Your task to perform on an android device: open app "Microsoft Outlook" (install if not already installed) Image 0: 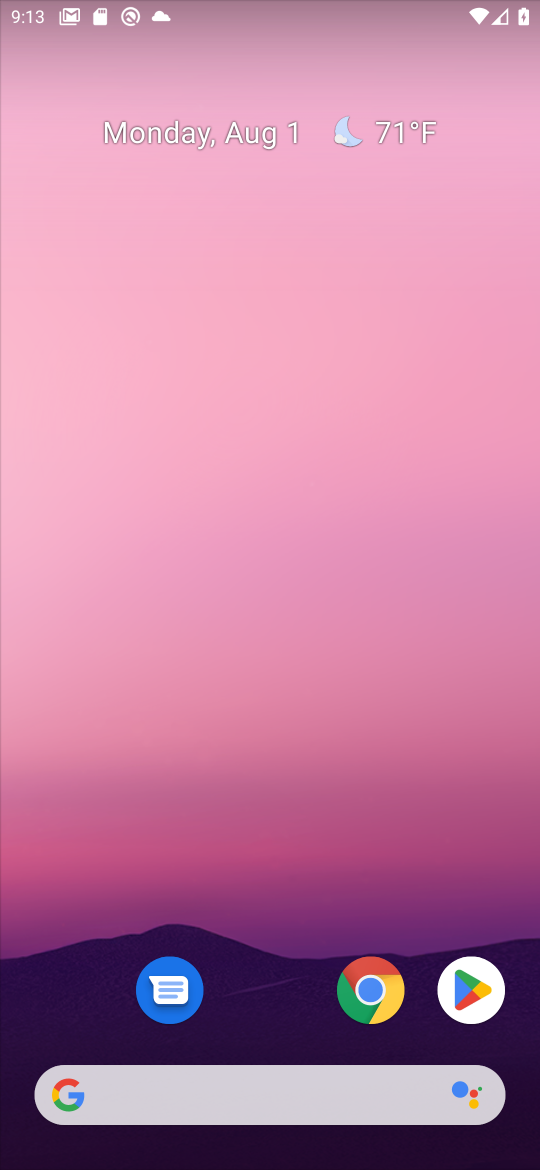
Step 0: press home button
Your task to perform on an android device: open app "Microsoft Outlook" (install if not already installed) Image 1: 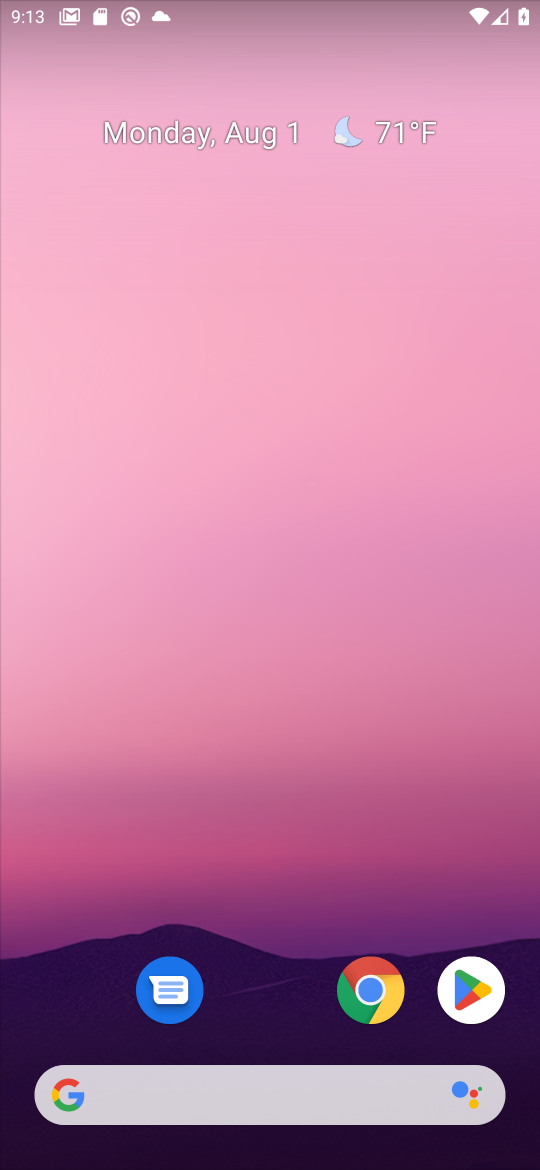
Step 1: click (469, 1012)
Your task to perform on an android device: open app "Microsoft Outlook" (install if not already installed) Image 2: 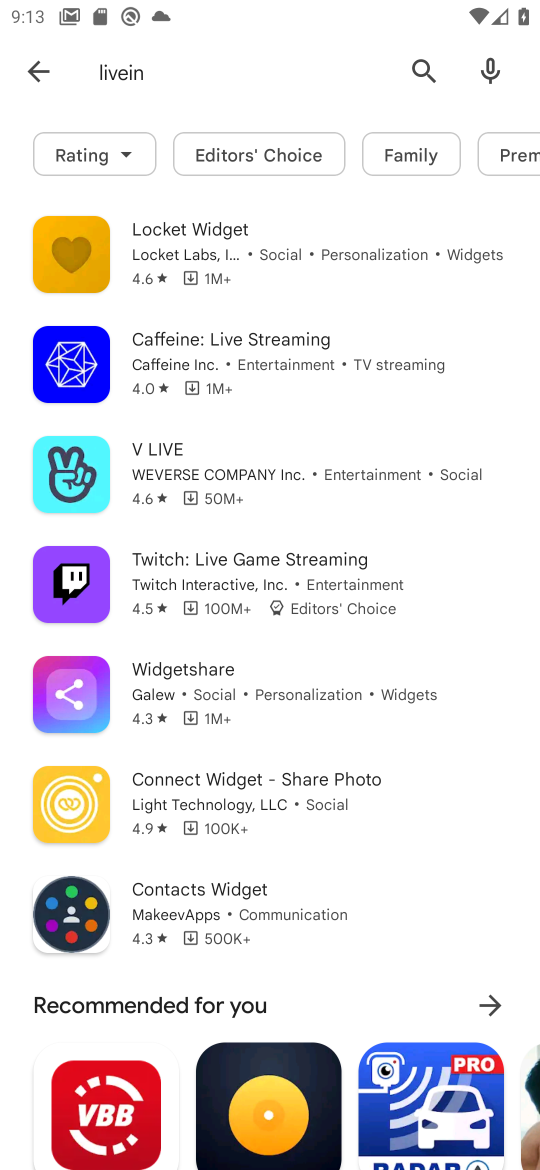
Step 2: click (409, 61)
Your task to perform on an android device: open app "Microsoft Outlook" (install if not already installed) Image 3: 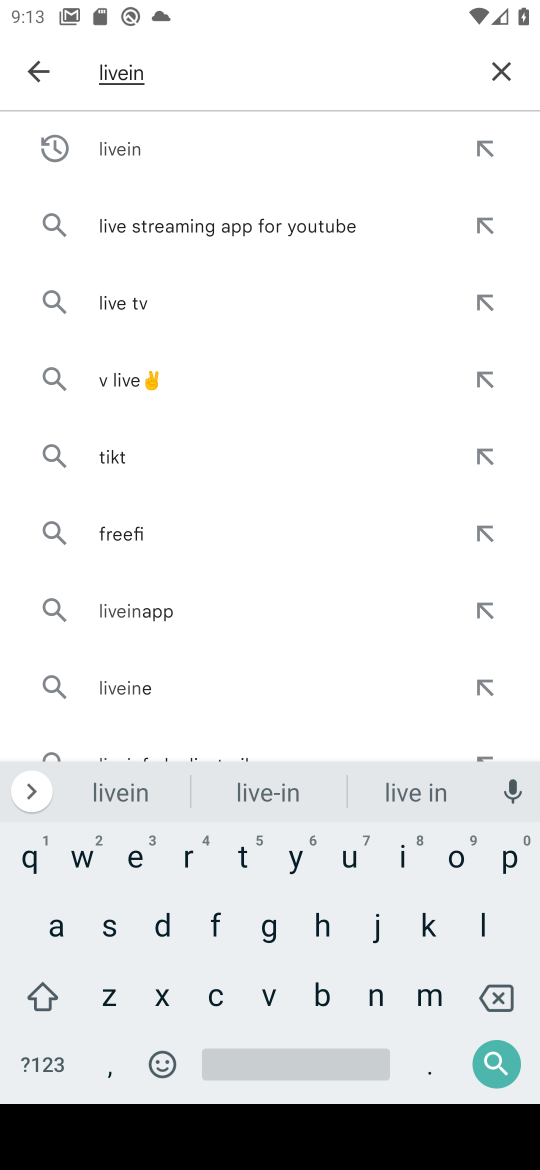
Step 3: click (500, 76)
Your task to perform on an android device: open app "Microsoft Outlook" (install if not already installed) Image 4: 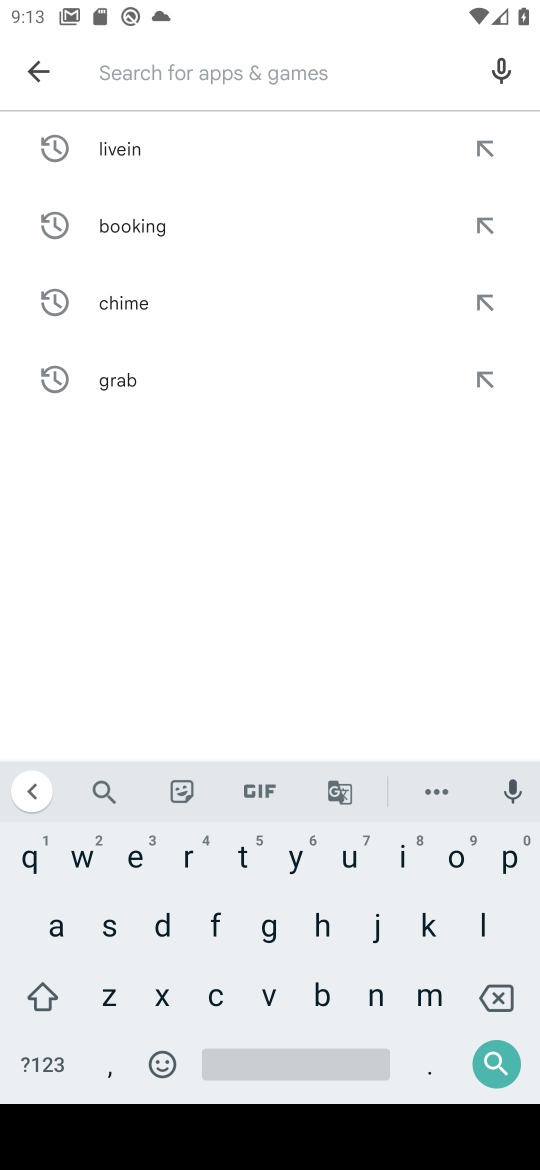
Step 4: click (453, 856)
Your task to perform on an android device: open app "Microsoft Outlook" (install if not already installed) Image 5: 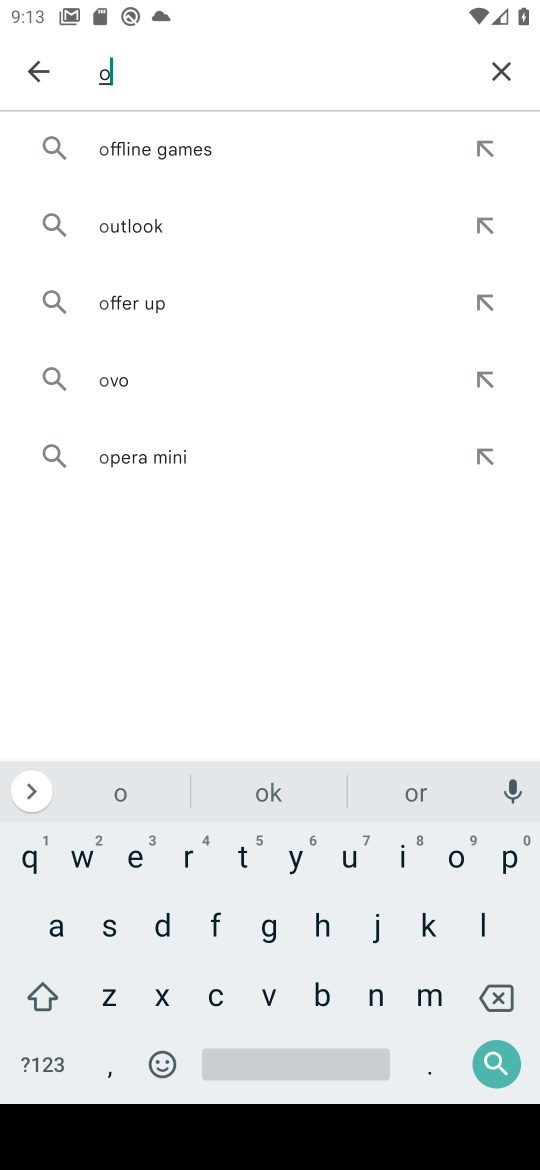
Step 5: click (336, 862)
Your task to perform on an android device: open app "Microsoft Outlook" (install if not already installed) Image 6: 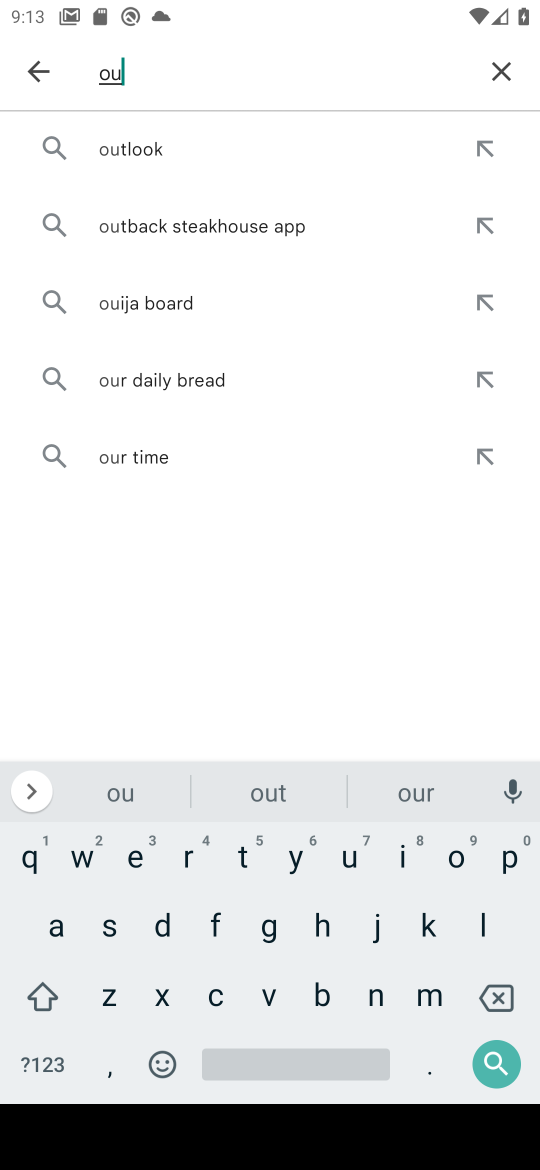
Step 6: click (243, 856)
Your task to perform on an android device: open app "Microsoft Outlook" (install if not already installed) Image 7: 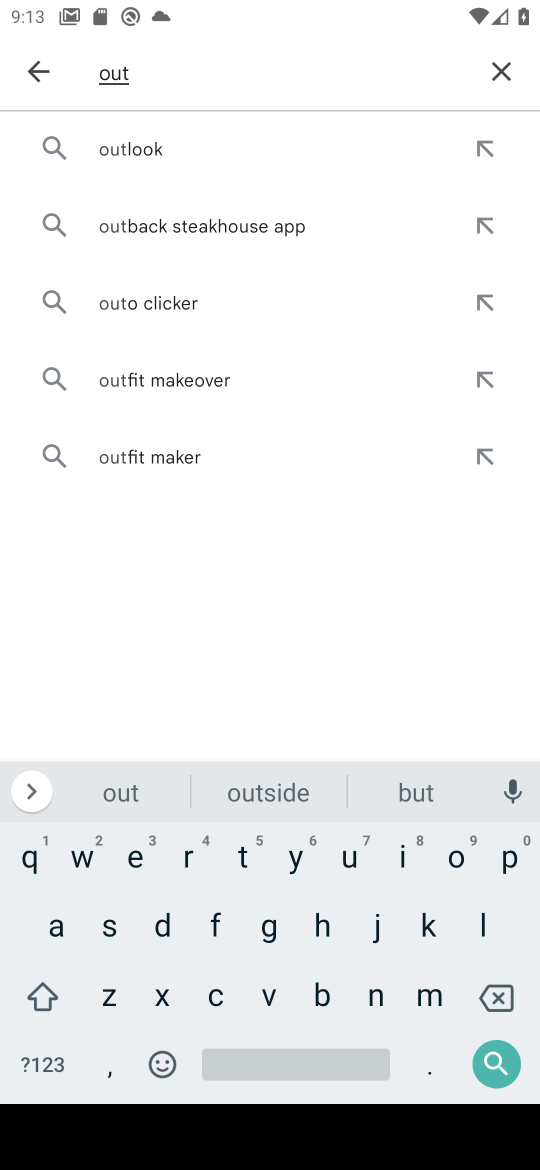
Step 7: click (153, 150)
Your task to perform on an android device: open app "Microsoft Outlook" (install if not already installed) Image 8: 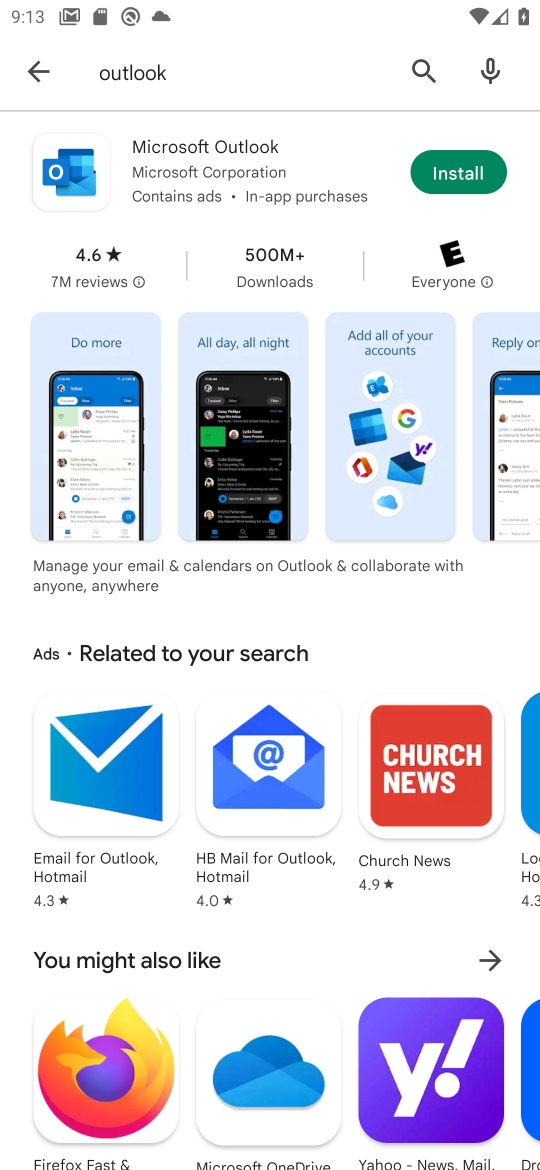
Step 8: click (461, 168)
Your task to perform on an android device: open app "Microsoft Outlook" (install if not already installed) Image 9: 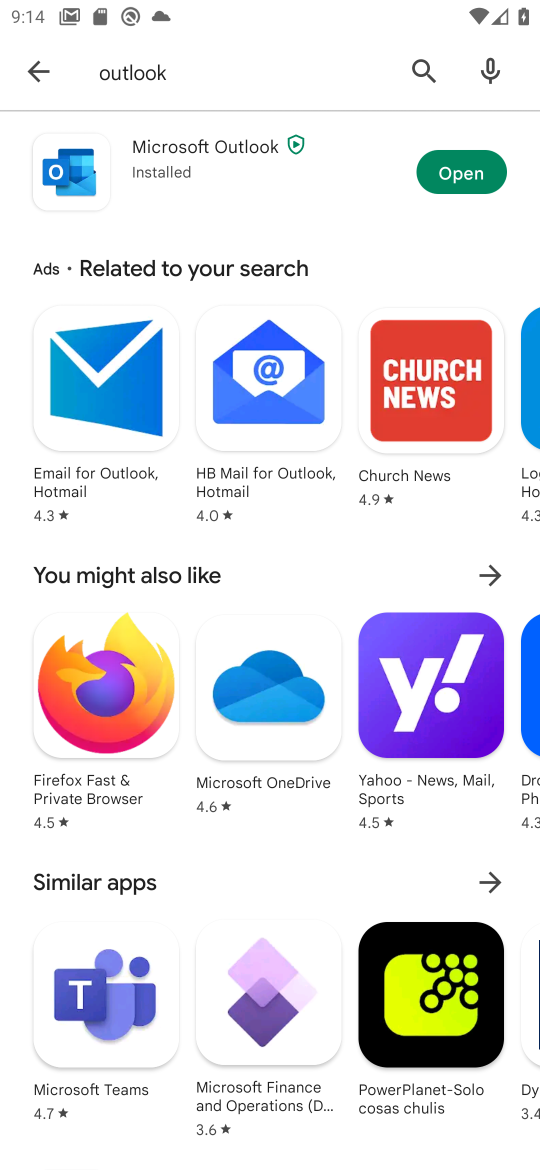
Step 9: click (452, 182)
Your task to perform on an android device: open app "Microsoft Outlook" (install if not already installed) Image 10: 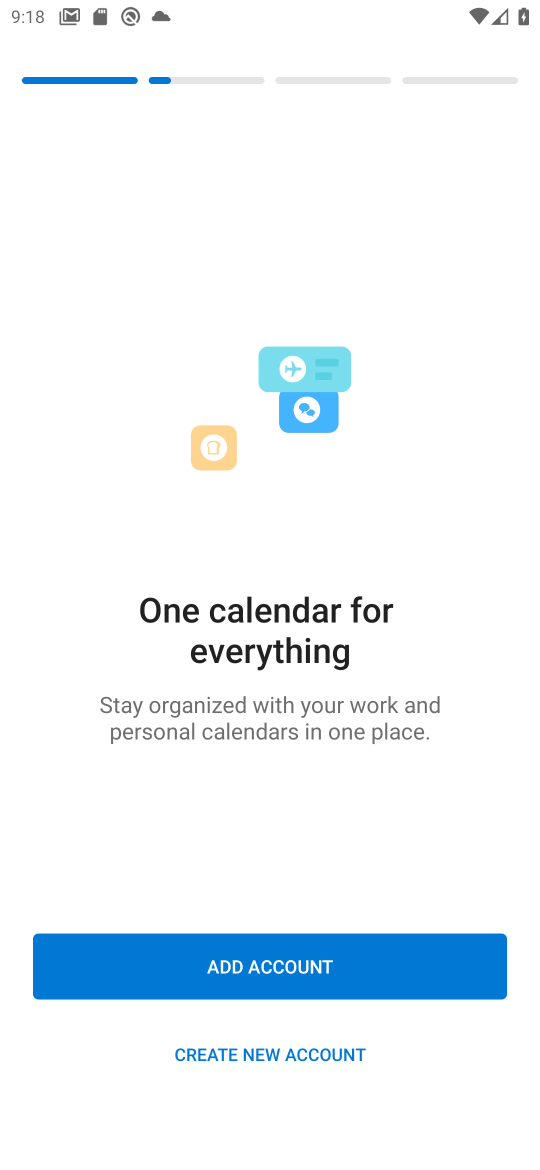
Step 10: task complete